Your task to perform on an android device: all mails in gmail Image 0: 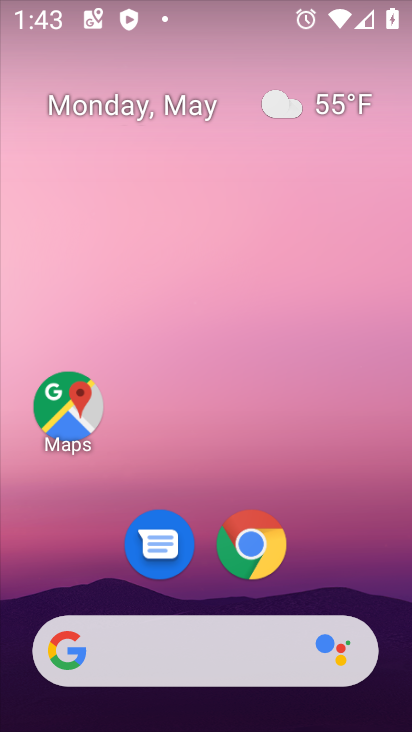
Step 0: drag from (395, 643) to (275, 65)
Your task to perform on an android device: all mails in gmail Image 1: 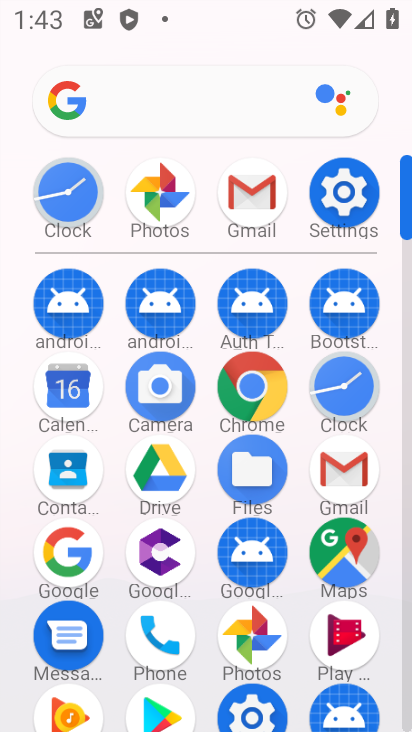
Step 1: click (408, 687)
Your task to perform on an android device: all mails in gmail Image 2: 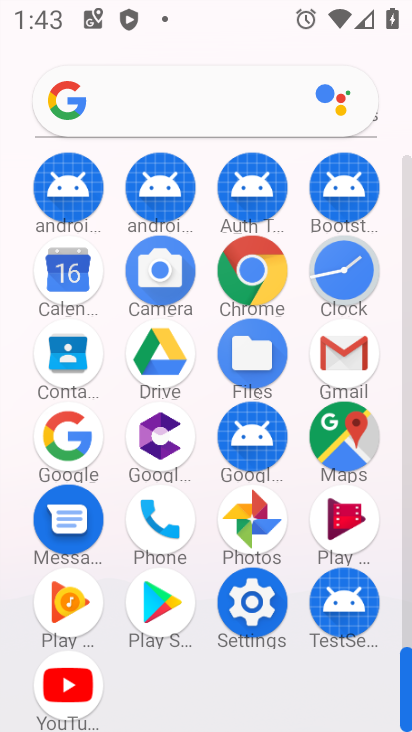
Step 2: click (343, 354)
Your task to perform on an android device: all mails in gmail Image 3: 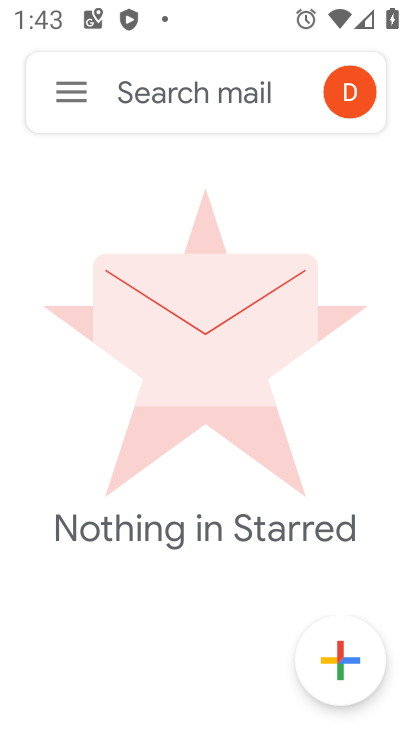
Step 3: click (75, 98)
Your task to perform on an android device: all mails in gmail Image 4: 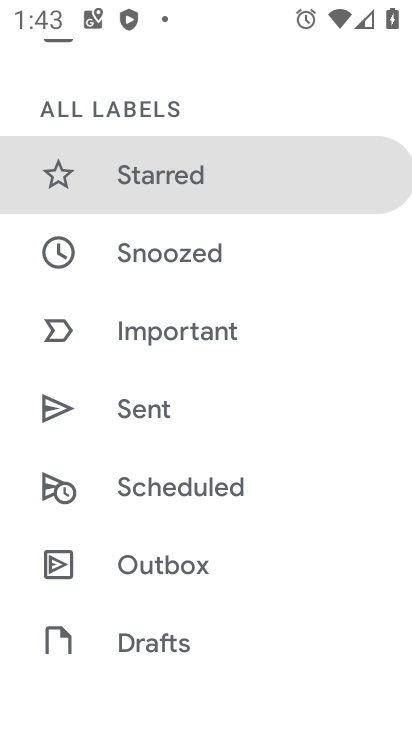
Step 4: drag from (274, 619) to (315, 90)
Your task to perform on an android device: all mails in gmail Image 5: 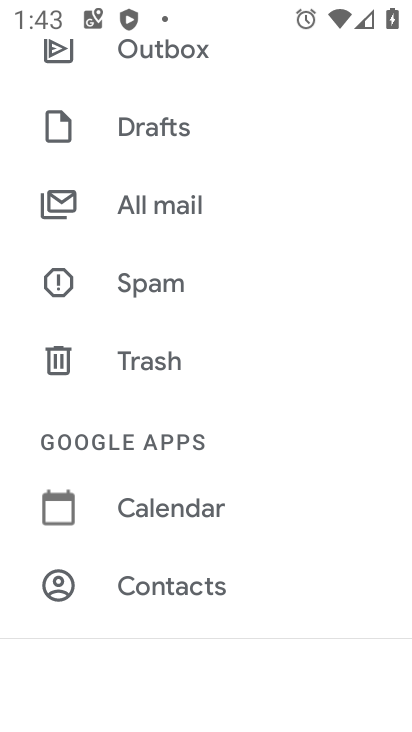
Step 5: click (143, 203)
Your task to perform on an android device: all mails in gmail Image 6: 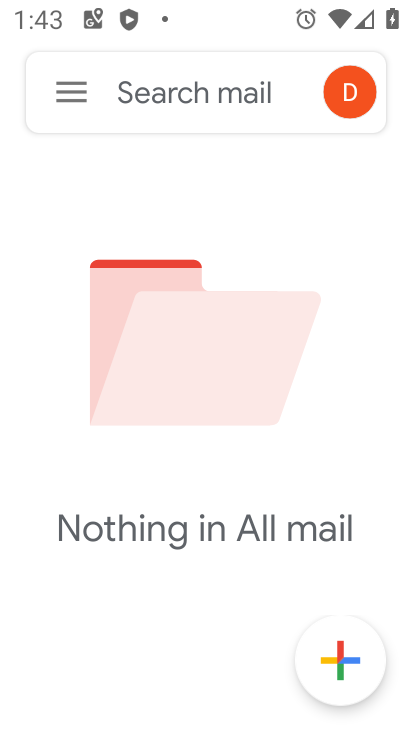
Step 6: task complete